Your task to perform on an android device: turn off smart reply in the gmail app Image 0: 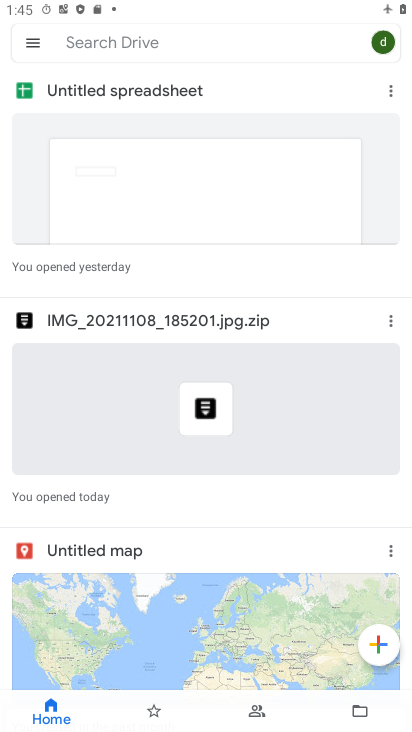
Step 0: press home button
Your task to perform on an android device: turn off smart reply in the gmail app Image 1: 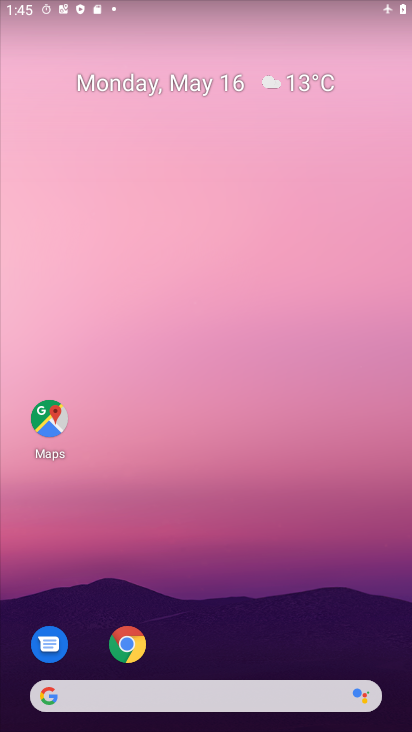
Step 1: drag from (206, 661) to (249, 75)
Your task to perform on an android device: turn off smart reply in the gmail app Image 2: 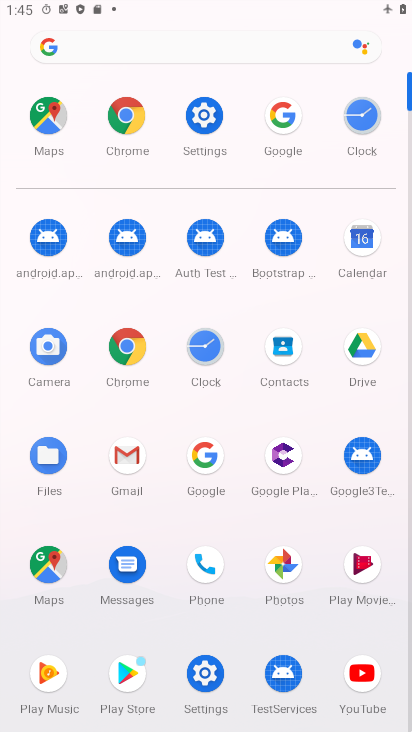
Step 2: click (135, 476)
Your task to perform on an android device: turn off smart reply in the gmail app Image 3: 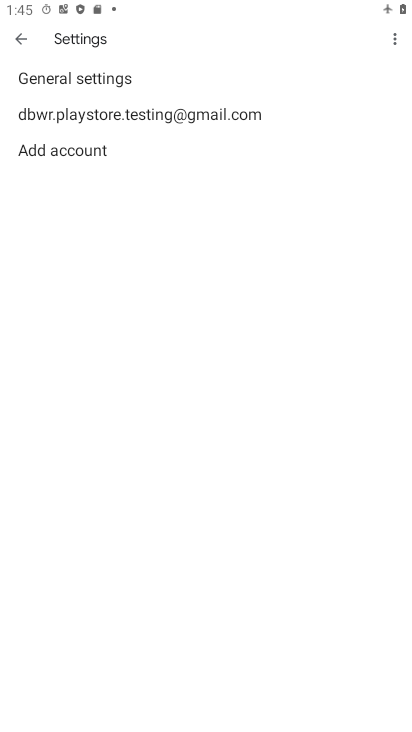
Step 3: click (109, 120)
Your task to perform on an android device: turn off smart reply in the gmail app Image 4: 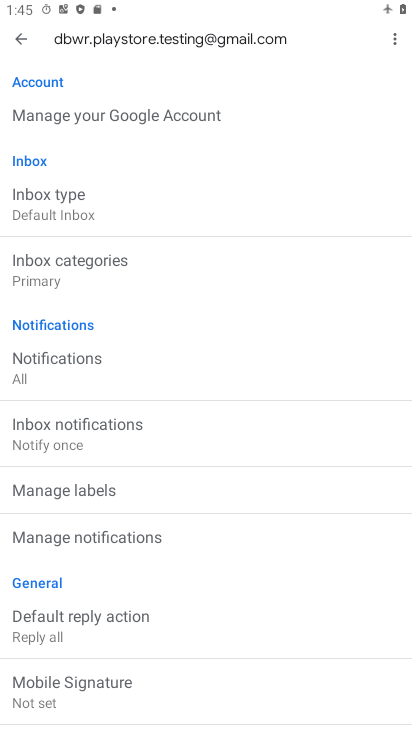
Step 4: drag from (169, 590) to (199, 115)
Your task to perform on an android device: turn off smart reply in the gmail app Image 5: 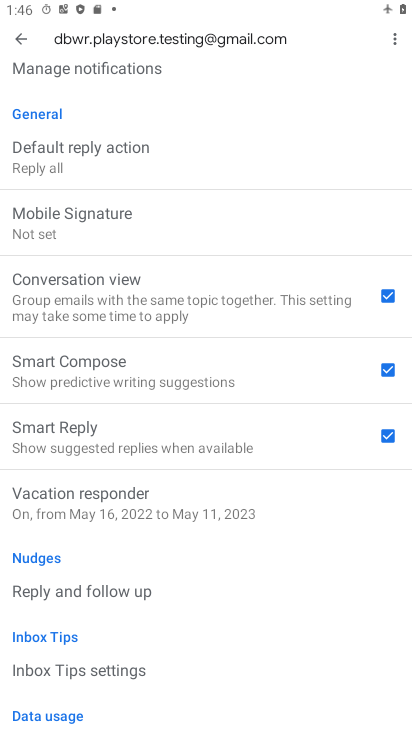
Step 5: click (389, 438)
Your task to perform on an android device: turn off smart reply in the gmail app Image 6: 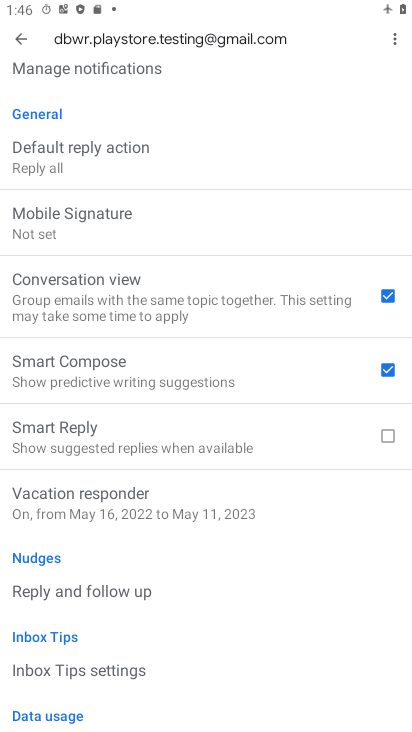
Step 6: task complete